Your task to perform on an android device: Open calendar and show me the second week of next month Image 0: 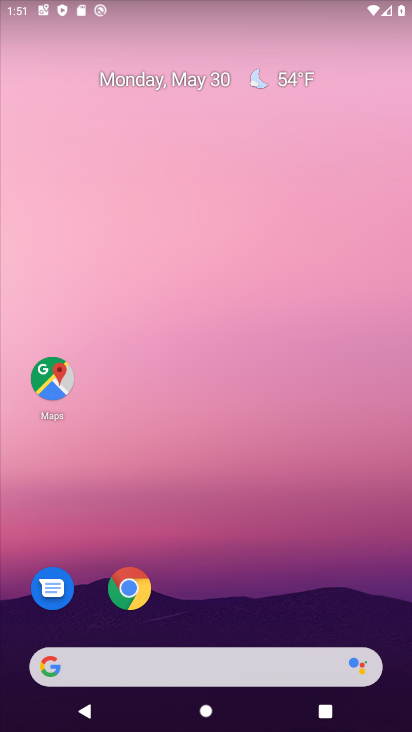
Step 0: drag from (260, 582) to (256, 96)
Your task to perform on an android device: Open calendar and show me the second week of next month Image 1: 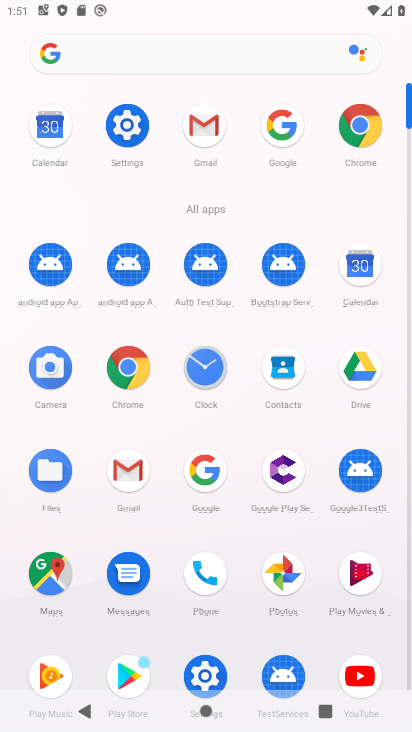
Step 1: click (361, 269)
Your task to perform on an android device: Open calendar and show me the second week of next month Image 2: 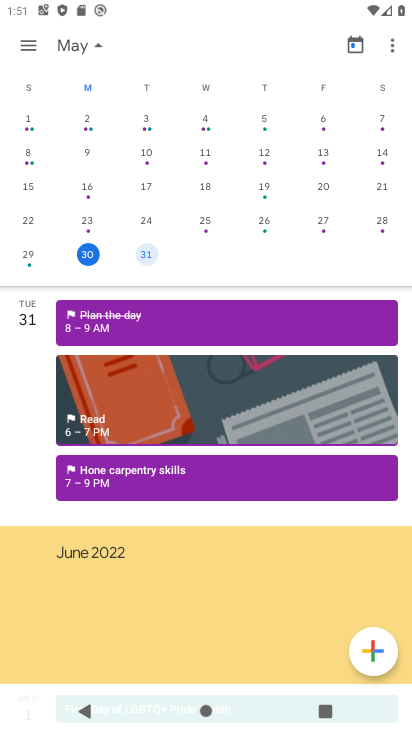
Step 2: drag from (370, 266) to (0, 234)
Your task to perform on an android device: Open calendar and show me the second week of next month Image 3: 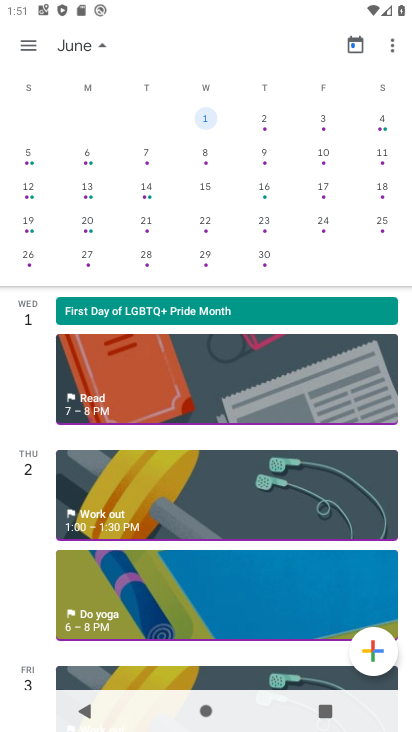
Step 3: click (207, 154)
Your task to perform on an android device: Open calendar and show me the second week of next month Image 4: 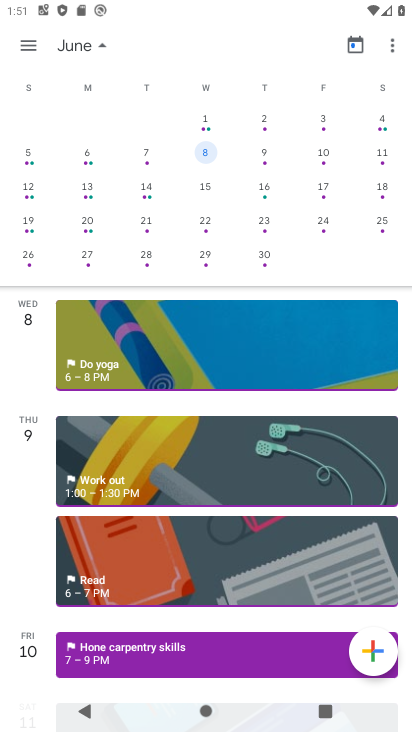
Step 4: task complete